Your task to perform on an android device: Do I have any events today? Image 0: 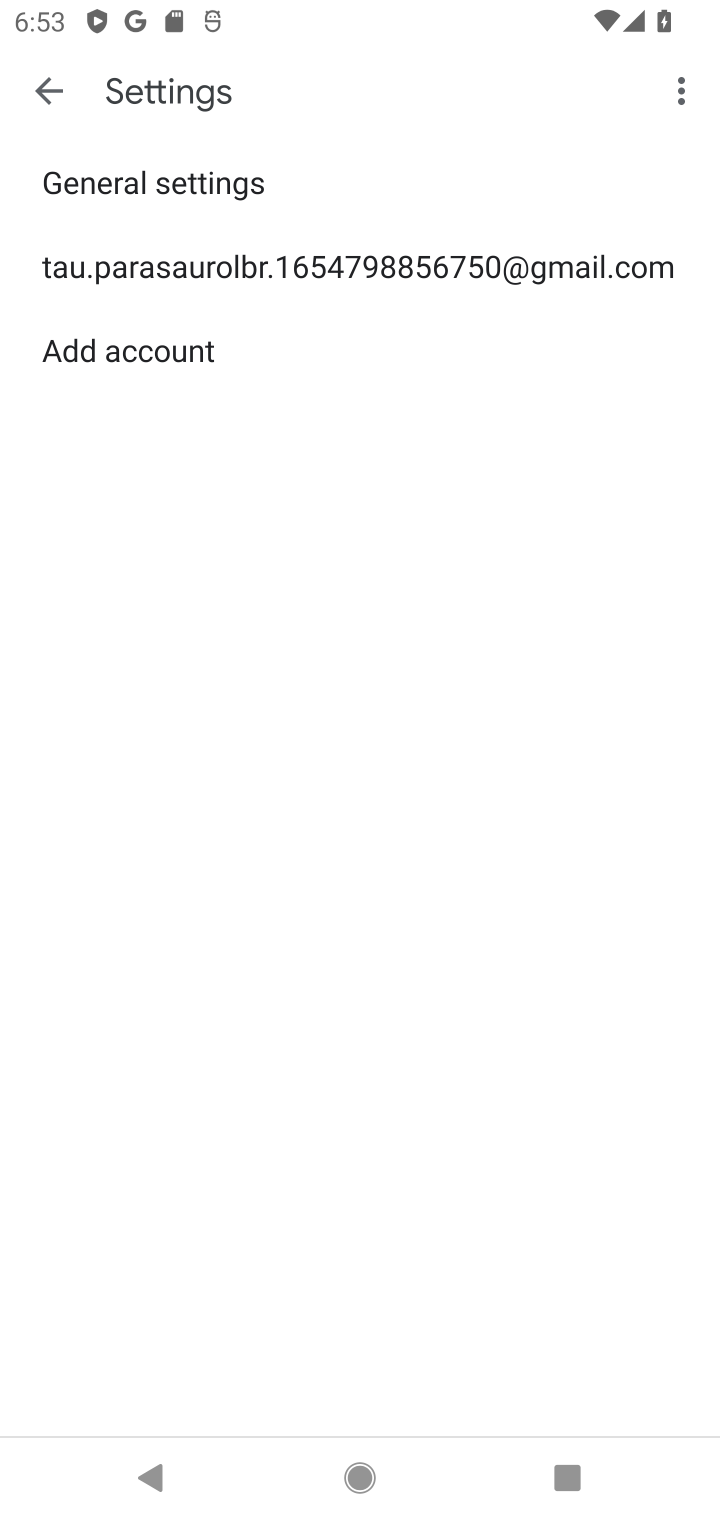
Step 0: press home button
Your task to perform on an android device: Do I have any events today? Image 1: 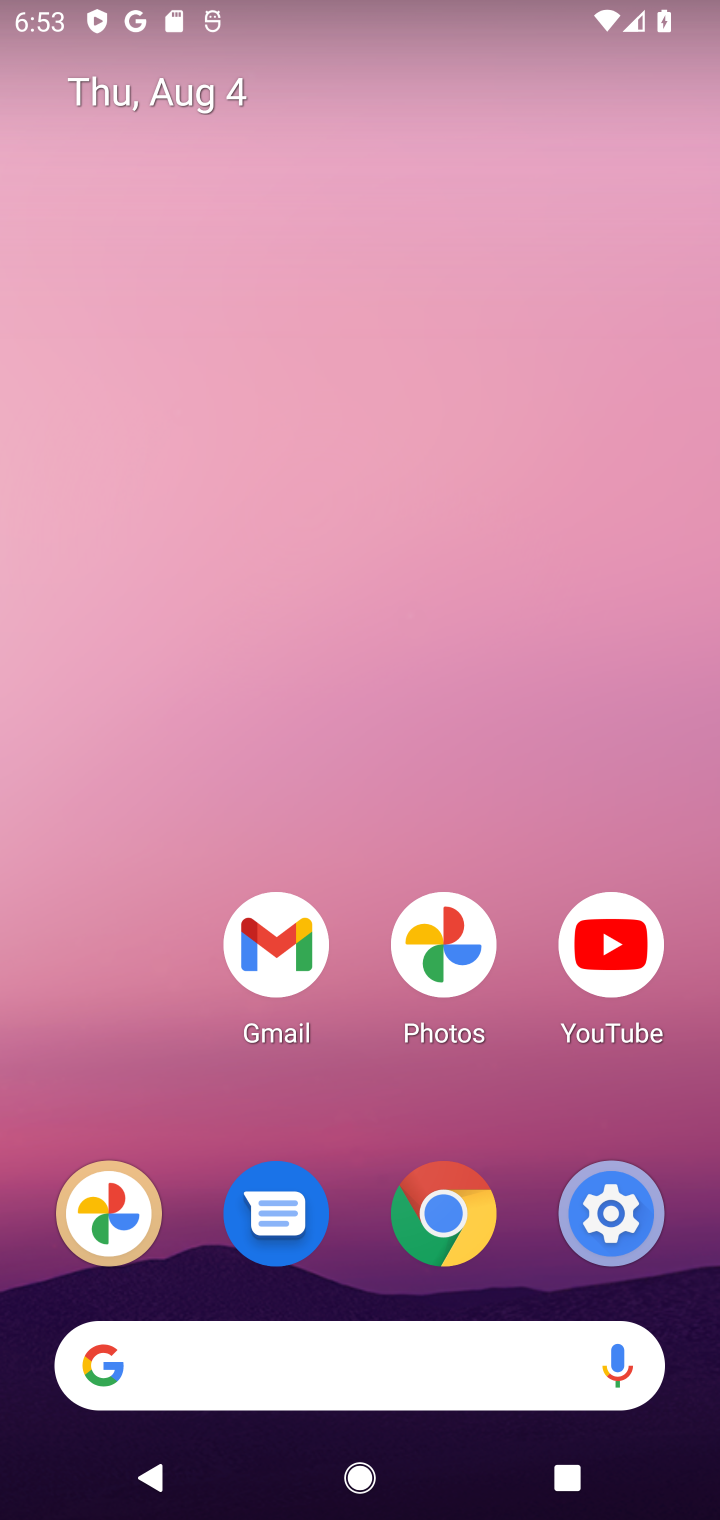
Step 1: drag from (318, 1113) to (422, 19)
Your task to perform on an android device: Do I have any events today? Image 2: 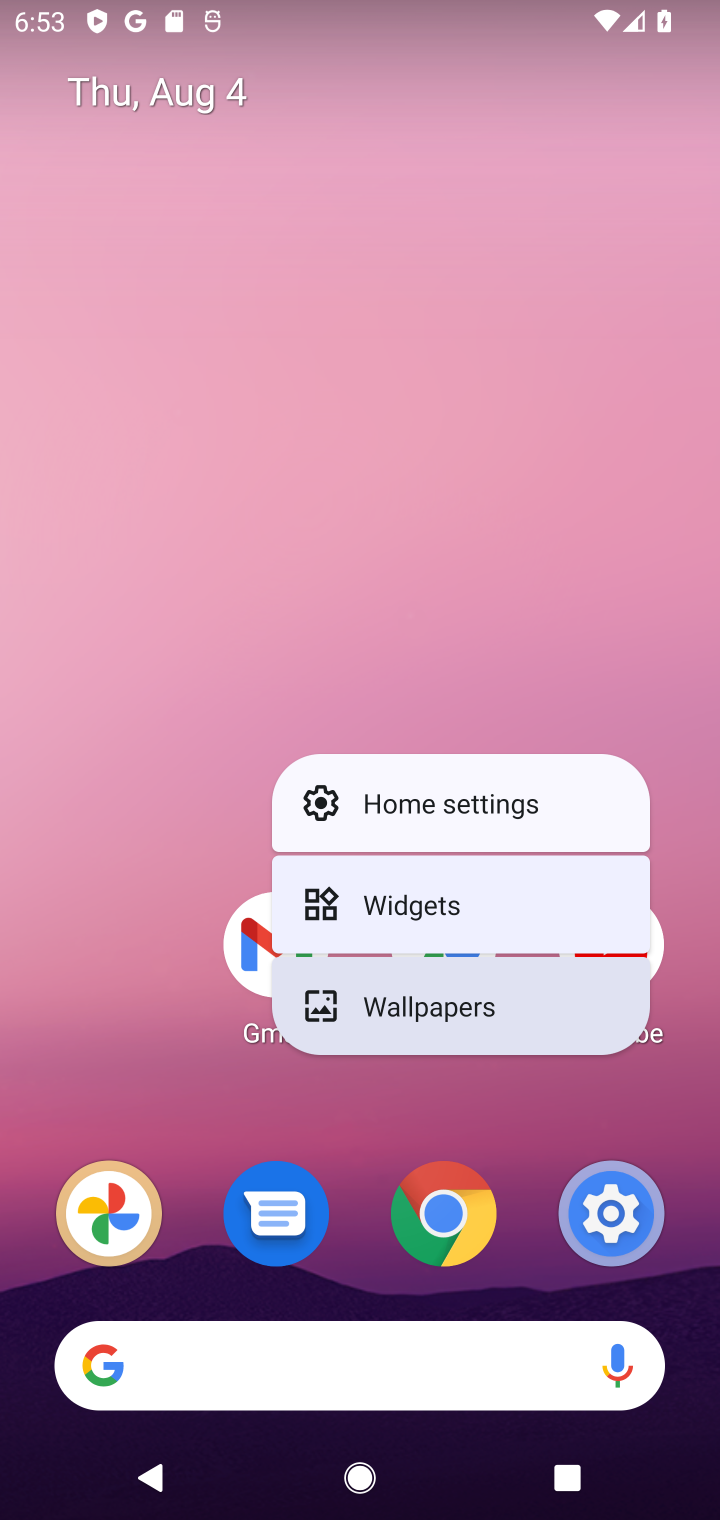
Step 2: click (583, 623)
Your task to perform on an android device: Do I have any events today? Image 3: 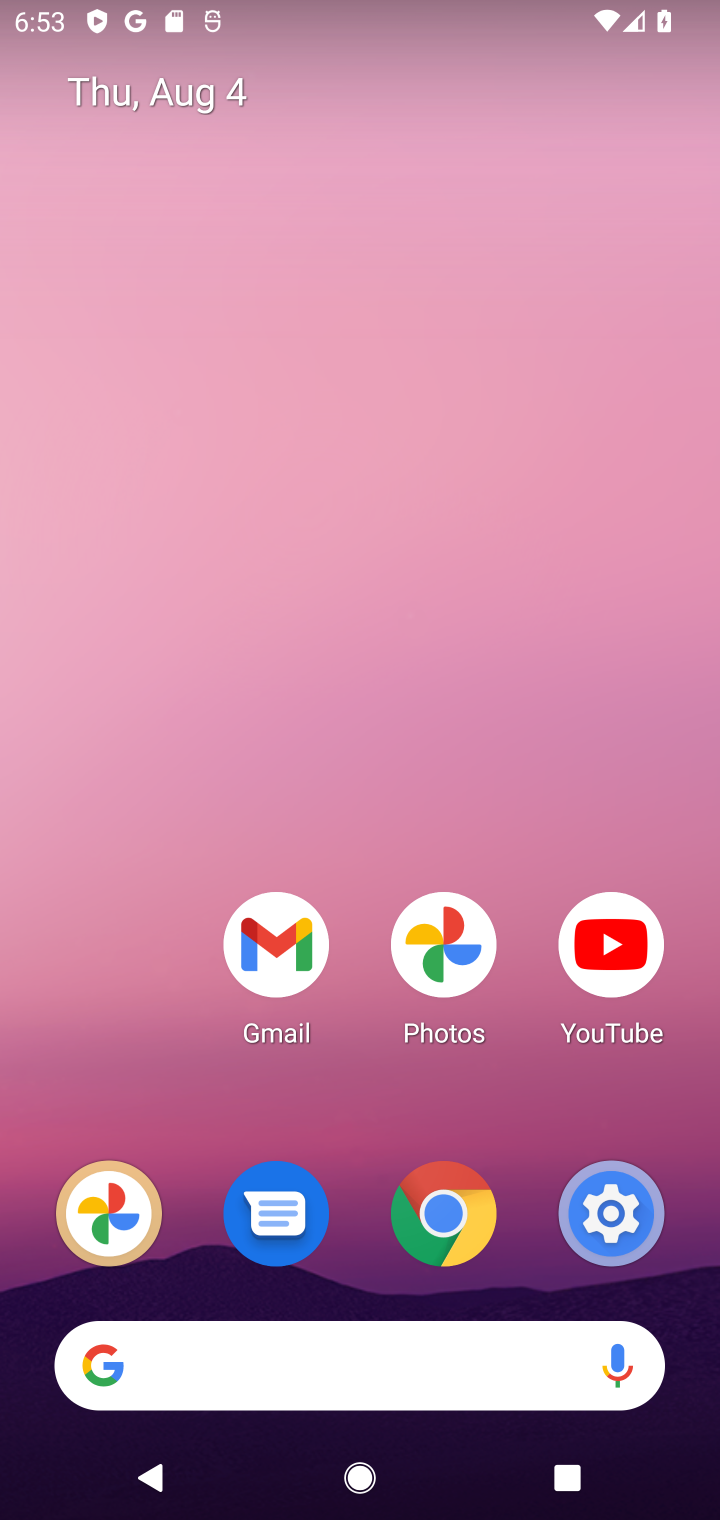
Step 3: drag from (356, 1105) to (251, 346)
Your task to perform on an android device: Do I have any events today? Image 4: 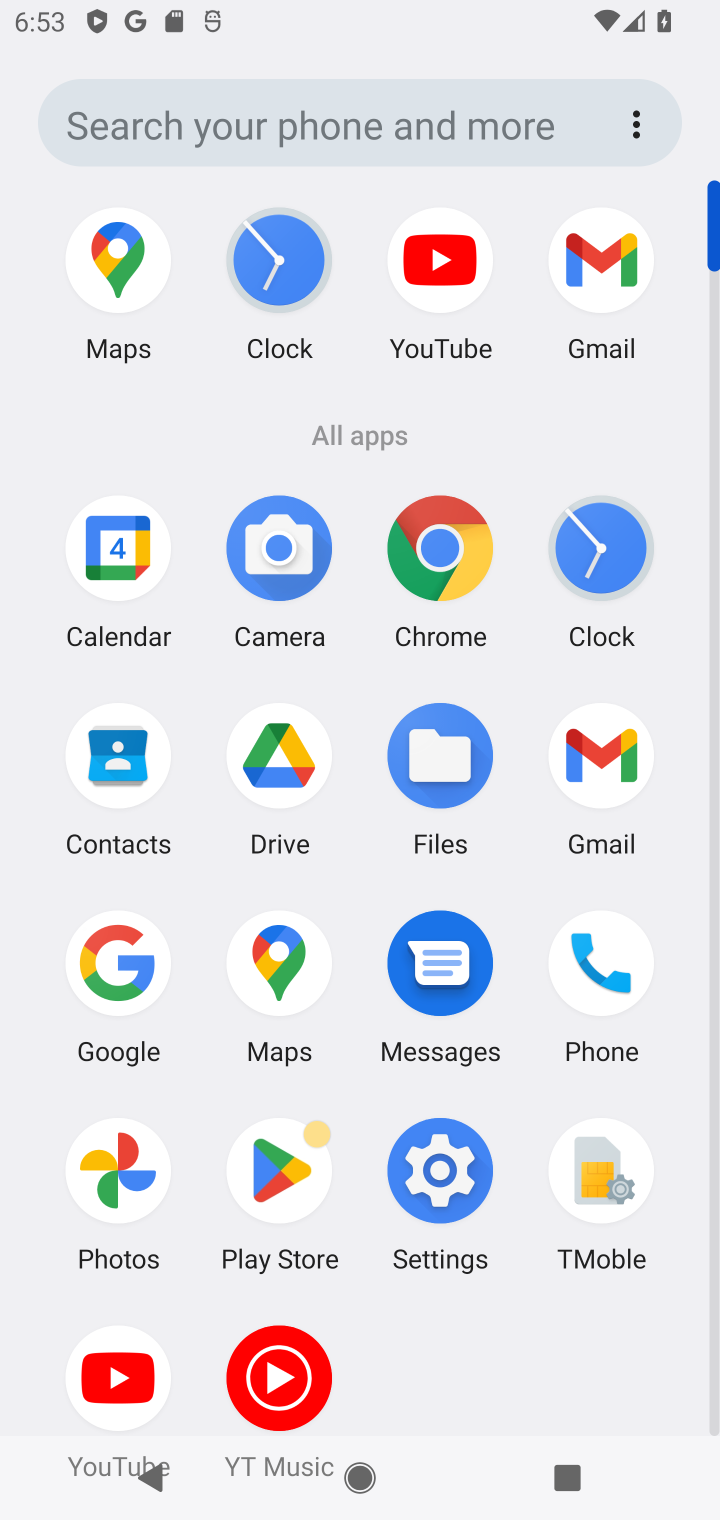
Step 4: click (135, 550)
Your task to perform on an android device: Do I have any events today? Image 5: 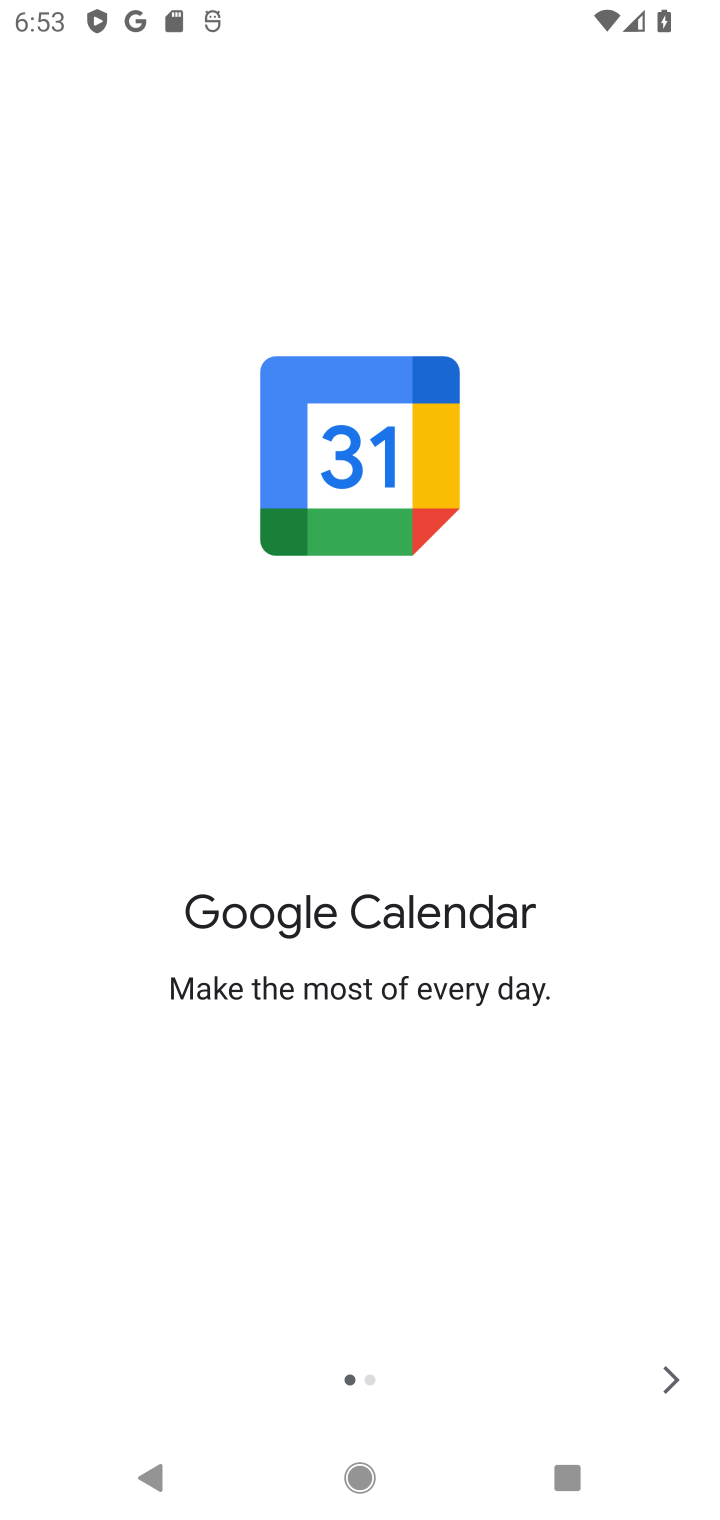
Step 5: click (677, 1387)
Your task to perform on an android device: Do I have any events today? Image 6: 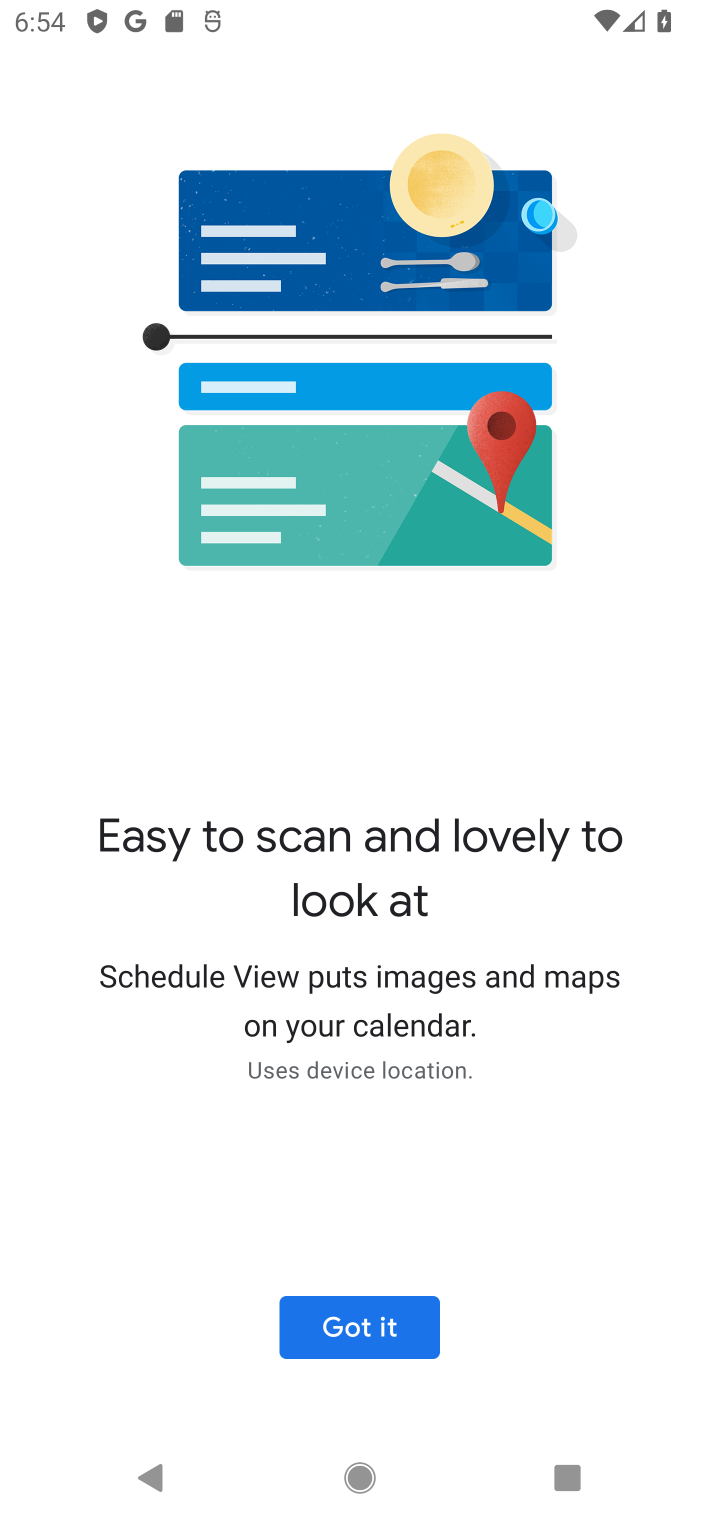
Step 6: click (364, 1338)
Your task to perform on an android device: Do I have any events today? Image 7: 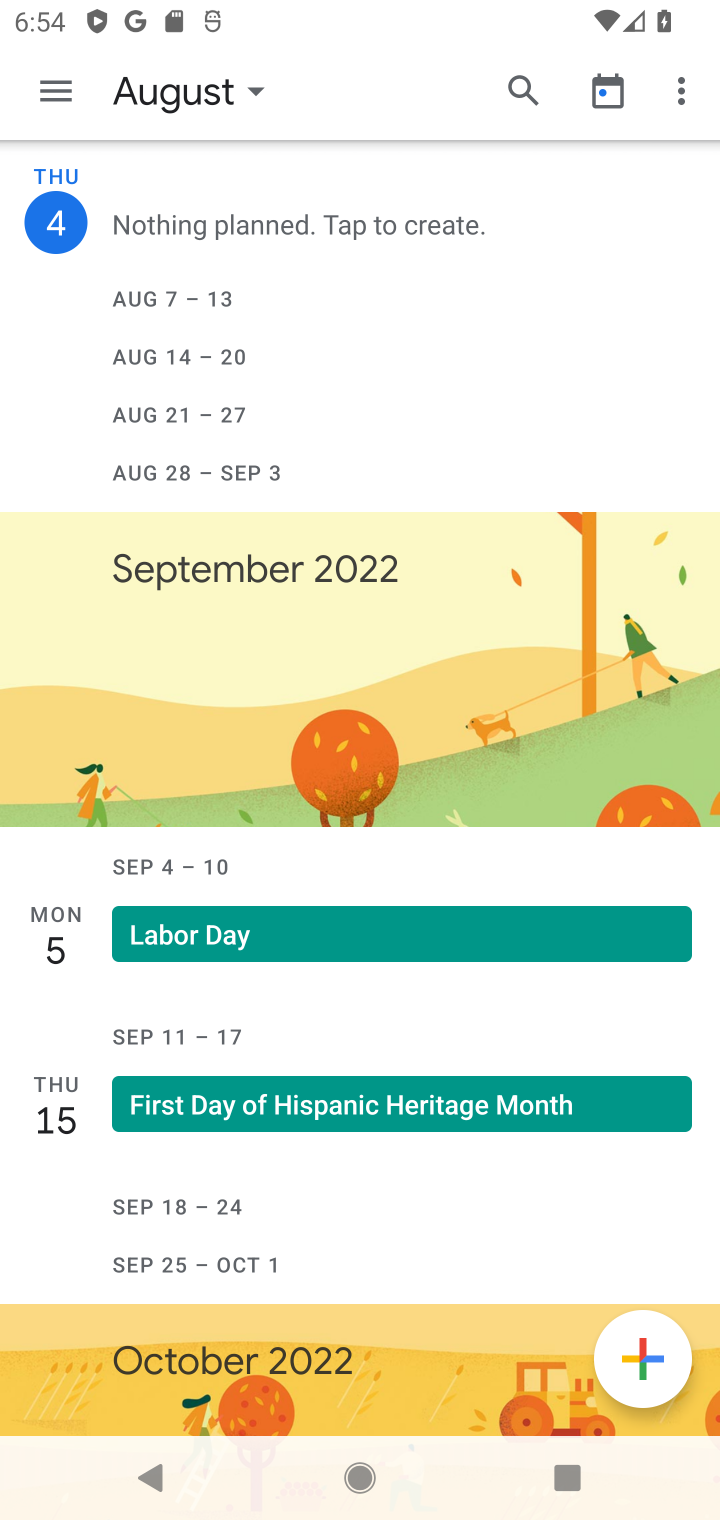
Step 7: click (222, 102)
Your task to perform on an android device: Do I have any events today? Image 8: 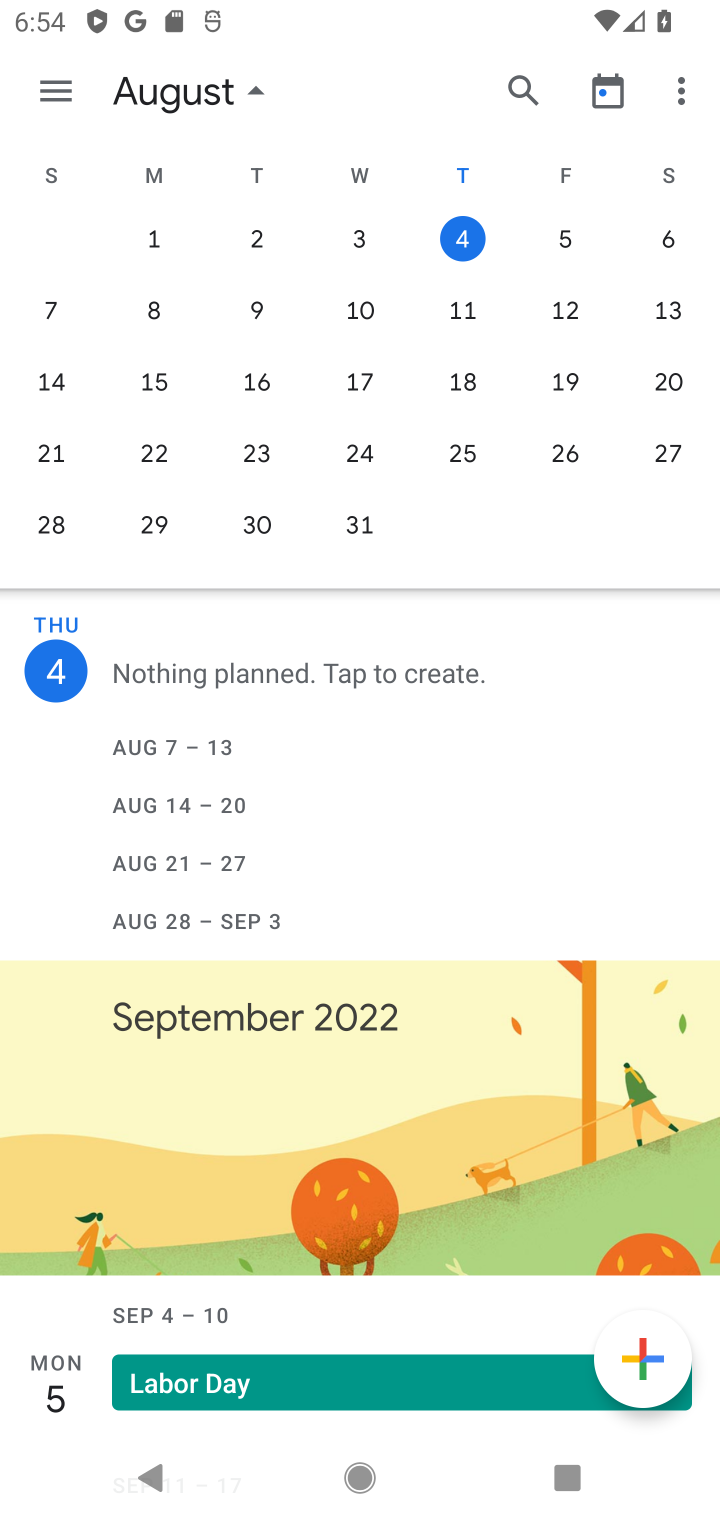
Step 8: task complete